Your task to perform on an android device: Open calendar and show me the fourth week of next month Image 0: 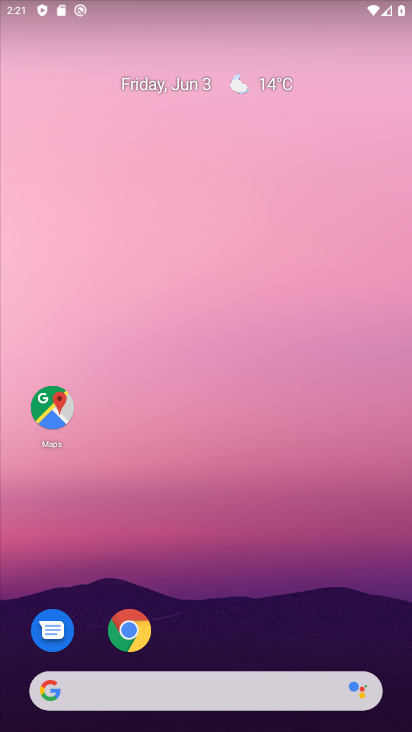
Step 0: drag from (305, 646) to (206, 188)
Your task to perform on an android device: Open calendar and show me the fourth week of next month Image 1: 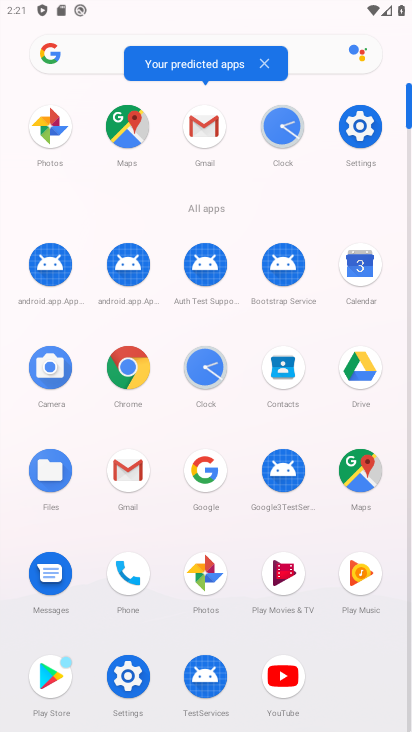
Step 1: click (371, 284)
Your task to perform on an android device: Open calendar and show me the fourth week of next month Image 2: 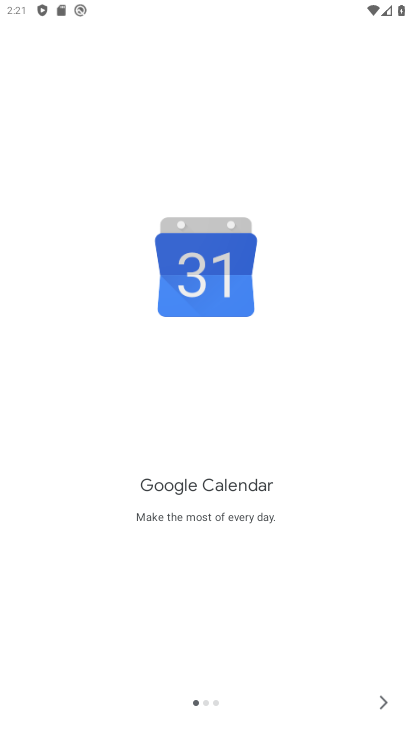
Step 2: click (389, 713)
Your task to perform on an android device: Open calendar and show me the fourth week of next month Image 3: 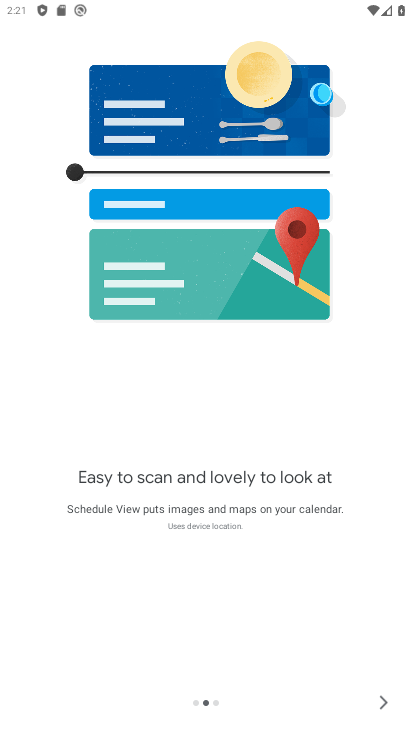
Step 3: click (389, 713)
Your task to perform on an android device: Open calendar and show me the fourth week of next month Image 4: 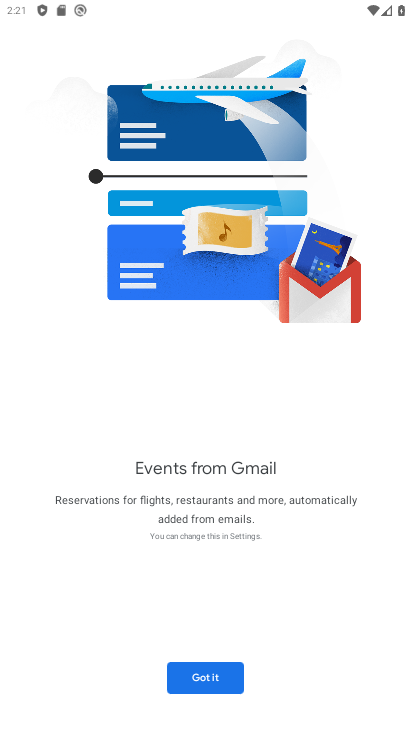
Step 4: click (239, 680)
Your task to perform on an android device: Open calendar and show me the fourth week of next month Image 5: 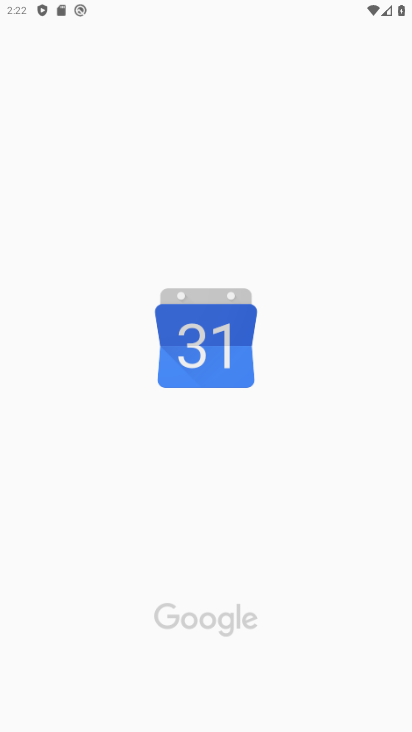
Step 5: press home button
Your task to perform on an android device: Open calendar and show me the fourth week of next month Image 6: 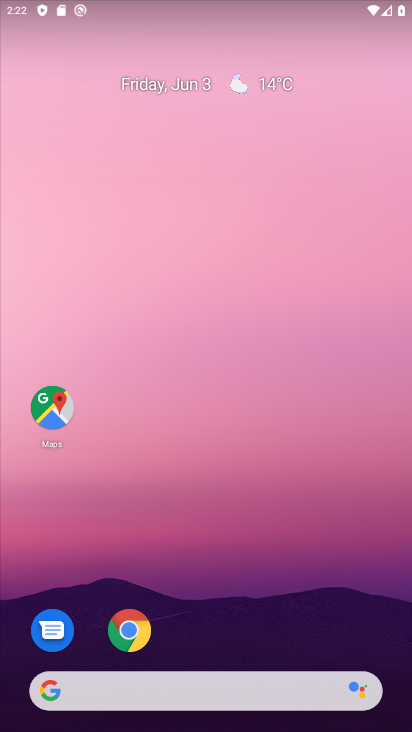
Step 6: drag from (215, 626) to (158, 193)
Your task to perform on an android device: Open calendar and show me the fourth week of next month Image 7: 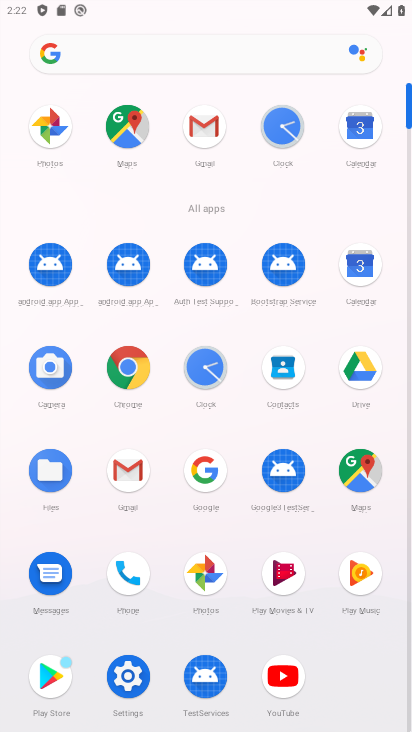
Step 7: click (361, 281)
Your task to perform on an android device: Open calendar and show me the fourth week of next month Image 8: 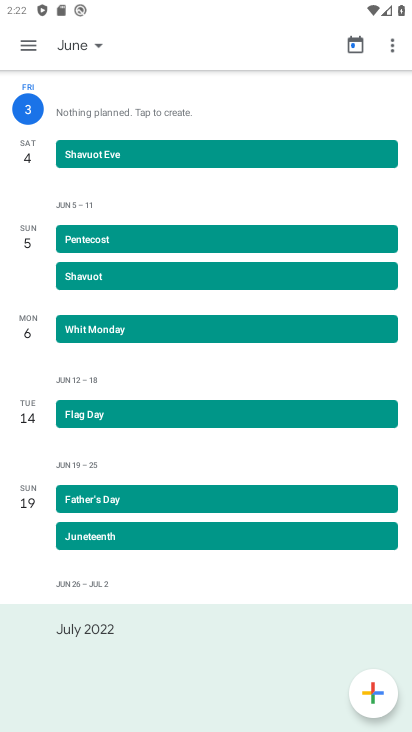
Step 8: click (20, 47)
Your task to perform on an android device: Open calendar and show me the fourth week of next month Image 9: 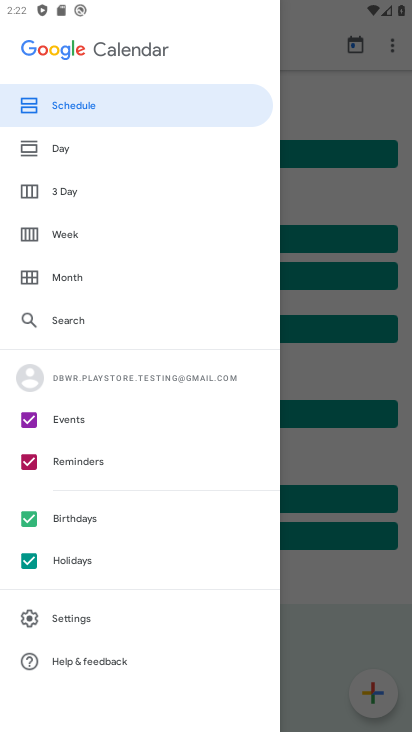
Step 9: click (72, 239)
Your task to perform on an android device: Open calendar and show me the fourth week of next month Image 10: 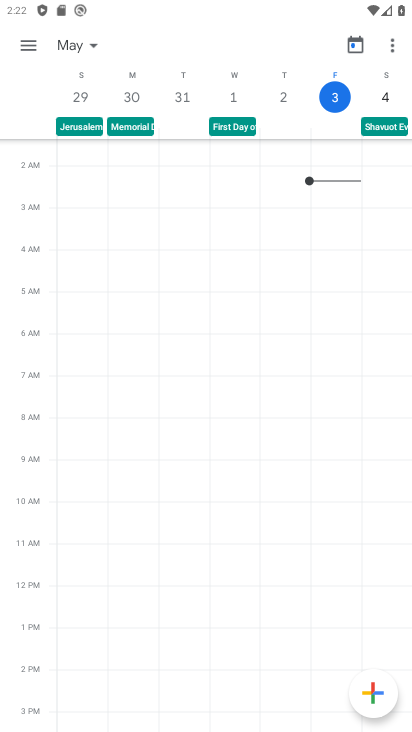
Step 10: click (87, 50)
Your task to perform on an android device: Open calendar and show me the fourth week of next month Image 11: 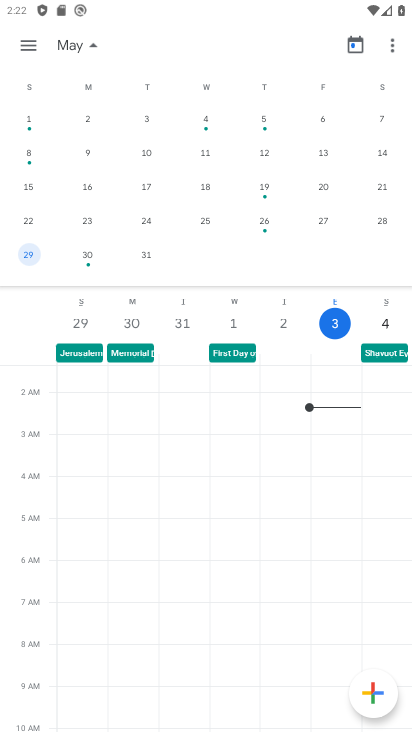
Step 11: drag from (377, 188) to (21, 190)
Your task to perform on an android device: Open calendar and show me the fourth week of next month Image 12: 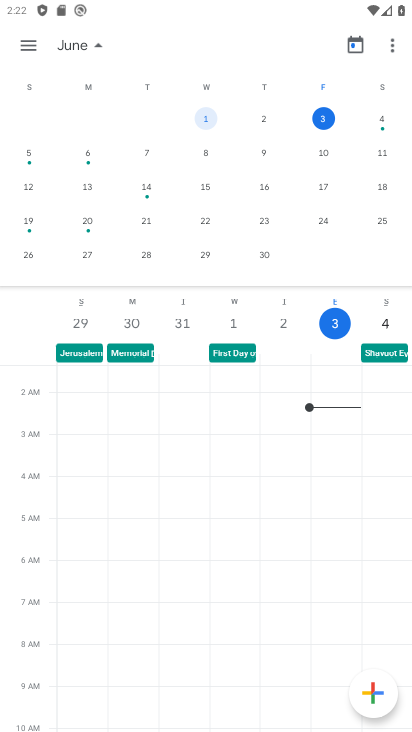
Step 12: click (216, 225)
Your task to perform on an android device: Open calendar and show me the fourth week of next month Image 13: 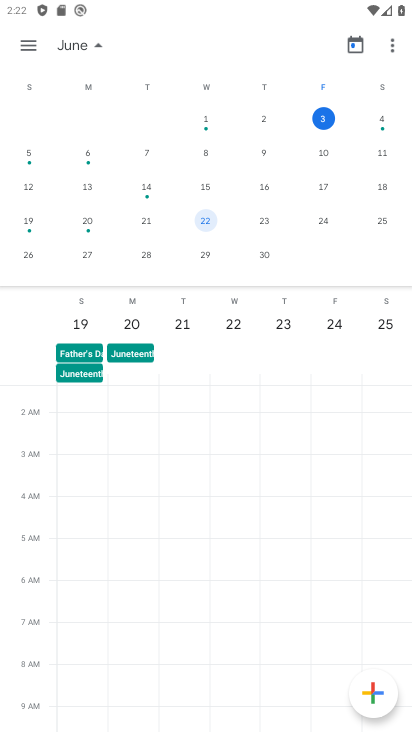
Step 13: task complete